Your task to perform on an android device: check out phone information Image 0: 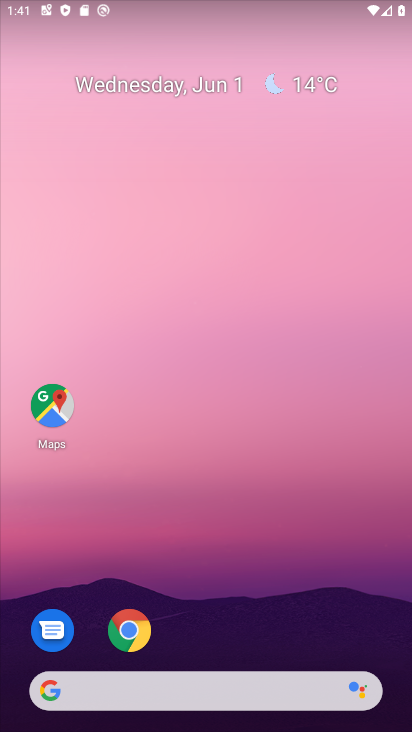
Step 0: drag from (219, 644) to (259, 65)
Your task to perform on an android device: check out phone information Image 1: 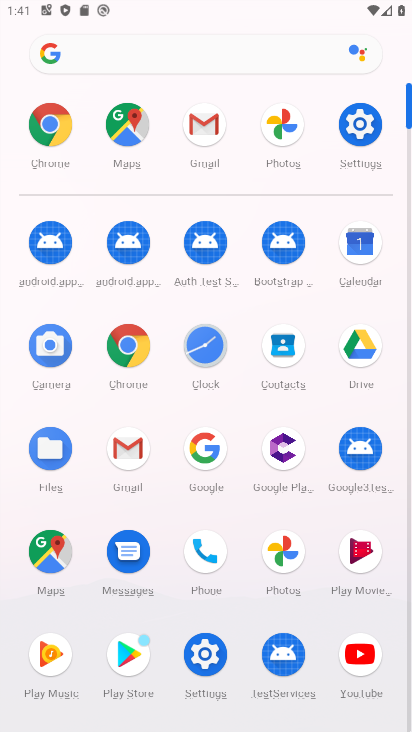
Step 1: click (199, 645)
Your task to perform on an android device: check out phone information Image 2: 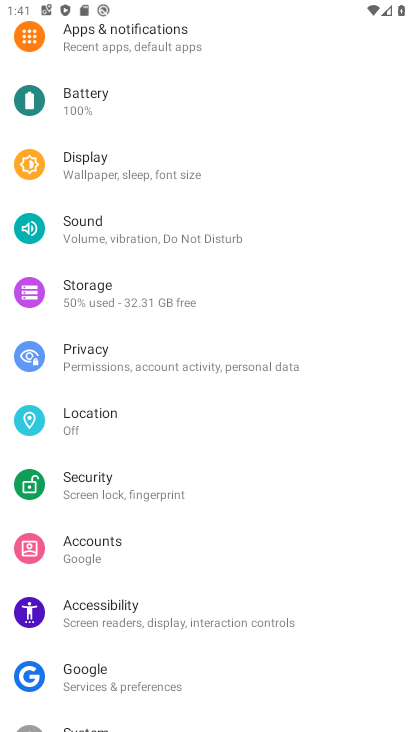
Step 2: drag from (205, 683) to (214, 42)
Your task to perform on an android device: check out phone information Image 3: 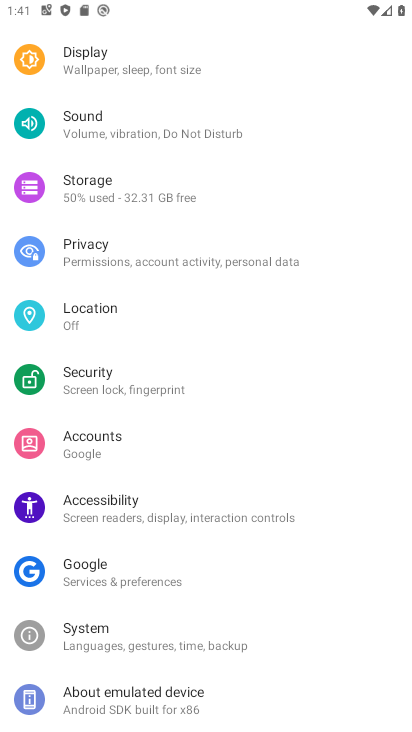
Step 3: click (210, 702)
Your task to perform on an android device: check out phone information Image 4: 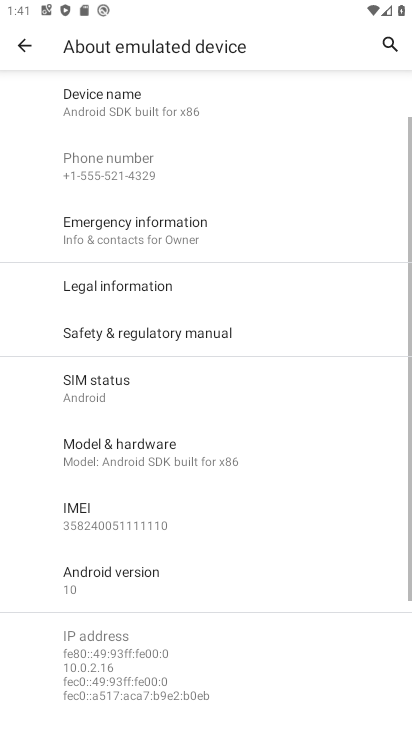
Step 4: task complete